Your task to perform on an android device: open device folders in google photos Image 0: 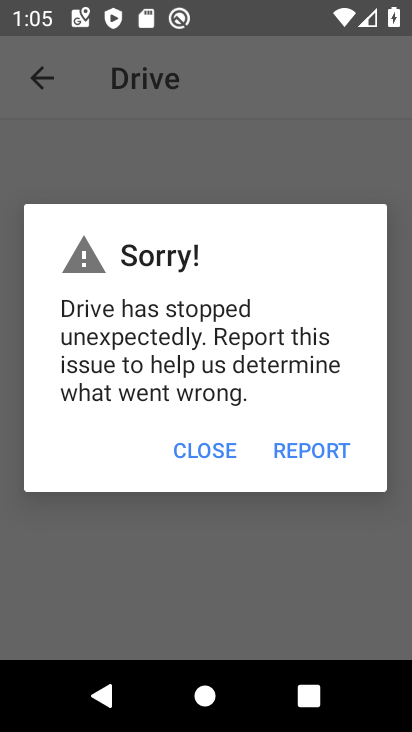
Step 0: press home button
Your task to perform on an android device: open device folders in google photos Image 1: 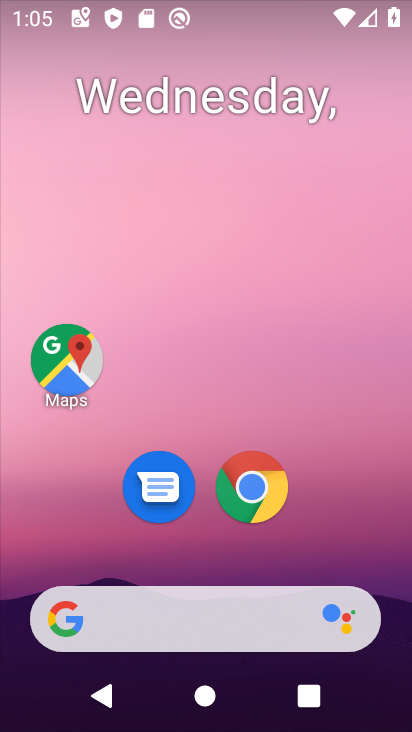
Step 1: drag from (226, 563) to (338, 40)
Your task to perform on an android device: open device folders in google photos Image 2: 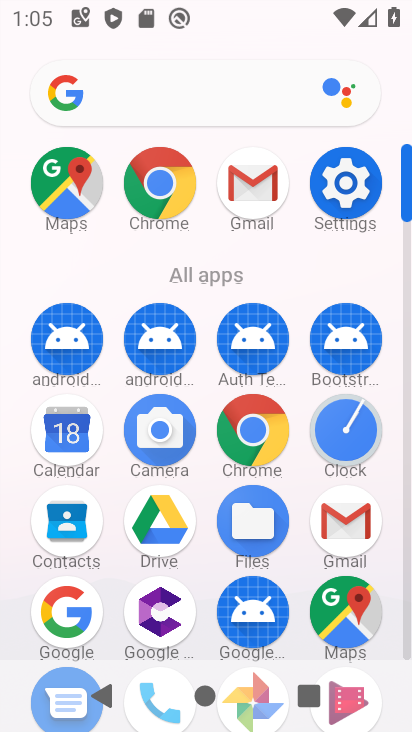
Step 2: drag from (194, 564) to (248, 160)
Your task to perform on an android device: open device folders in google photos Image 3: 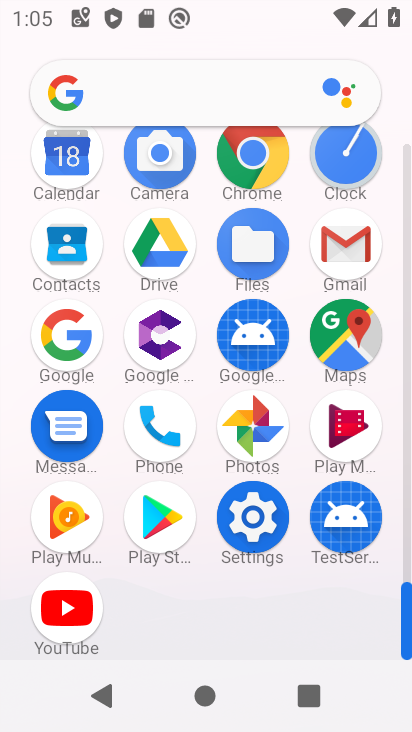
Step 3: click (246, 438)
Your task to perform on an android device: open device folders in google photos Image 4: 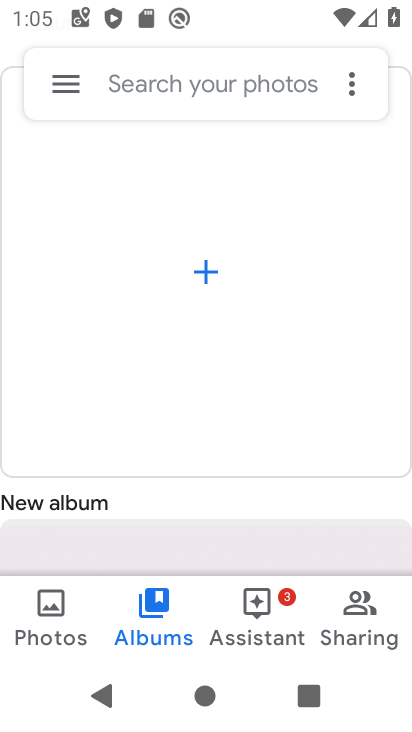
Step 4: click (35, 605)
Your task to perform on an android device: open device folders in google photos Image 5: 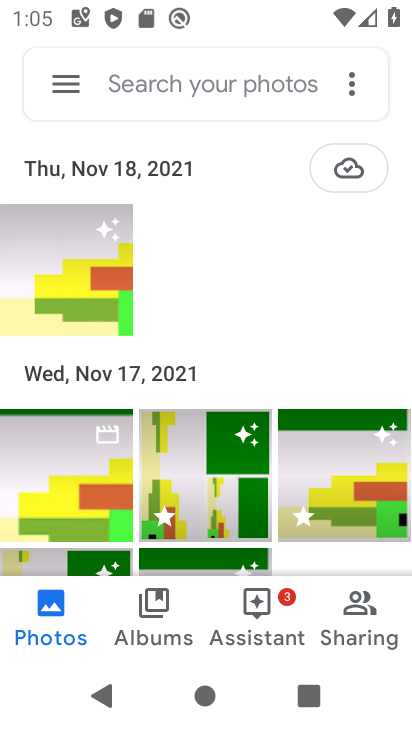
Step 5: click (71, 78)
Your task to perform on an android device: open device folders in google photos Image 6: 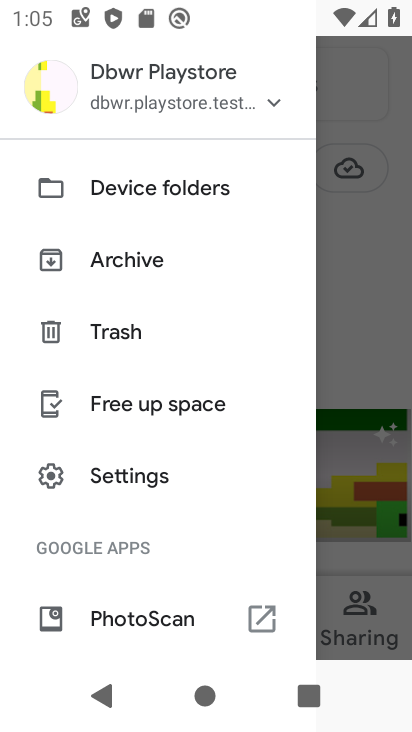
Step 6: click (106, 189)
Your task to perform on an android device: open device folders in google photos Image 7: 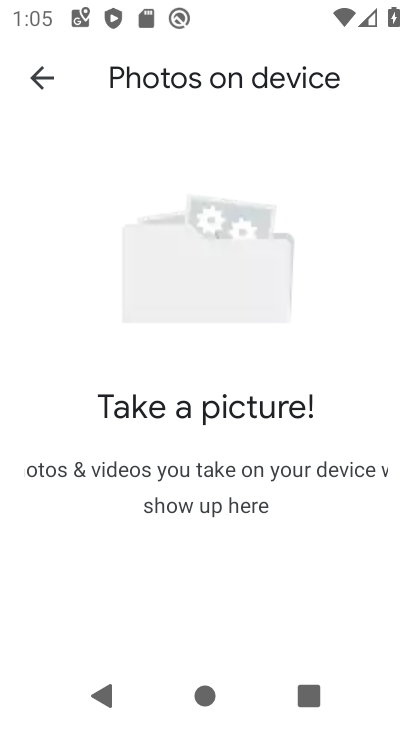
Step 7: task complete